Your task to perform on an android device: Clear the shopping cart on target.com. Search for "razer blade" on target.com, select the first entry, add it to the cart, then select checkout. Image 0: 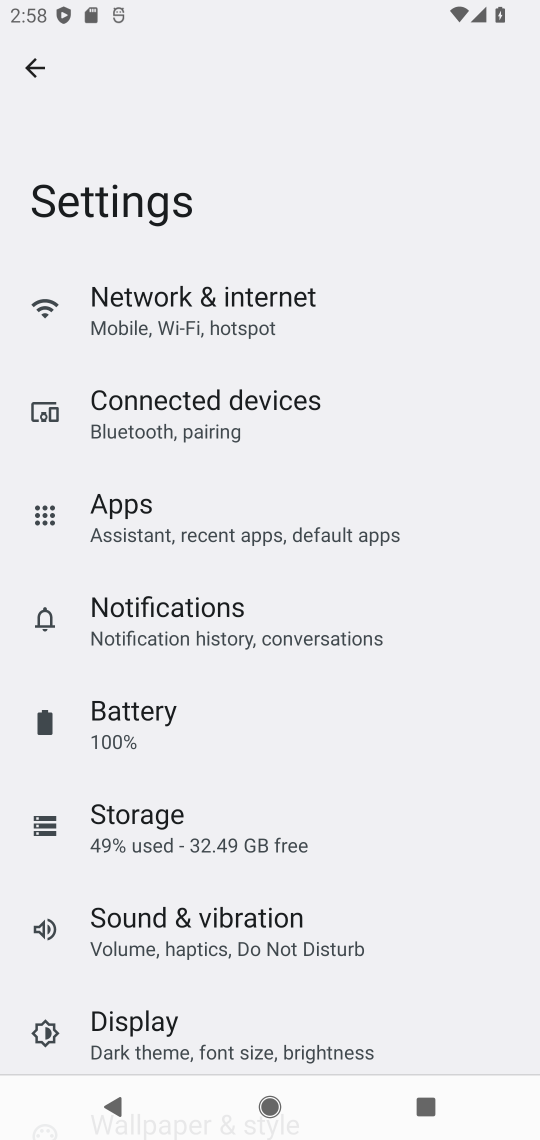
Step 0: press home button
Your task to perform on an android device: Clear the shopping cart on target.com. Search for "razer blade" on target.com, select the first entry, add it to the cart, then select checkout. Image 1: 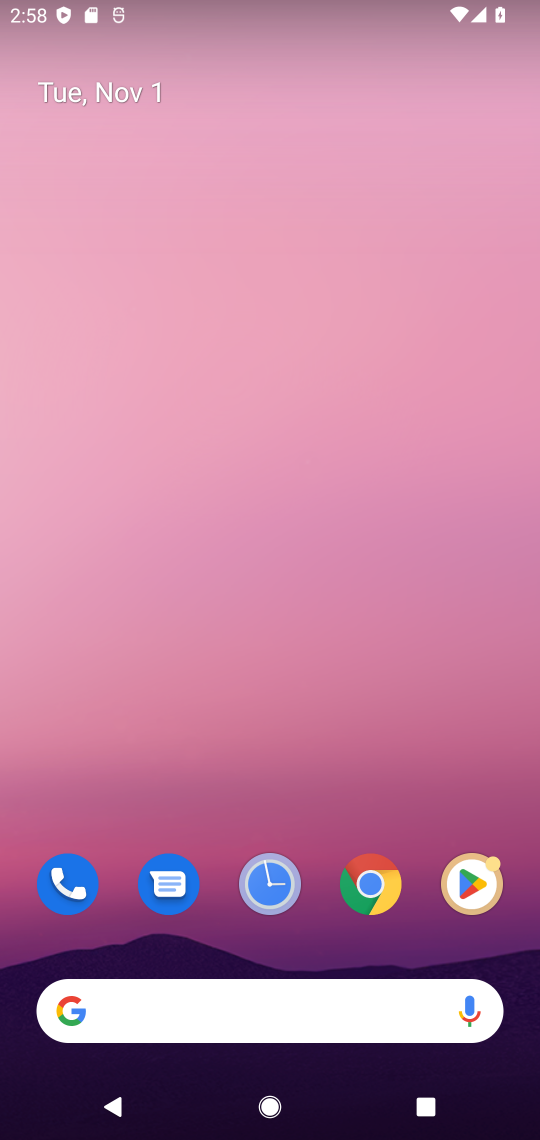
Step 1: click (376, 868)
Your task to perform on an android device: Clear the shopping cart on target.com. Search for "razer blade" on target.com, select the first entry, add it to the cart, then select checkout. Image 2: 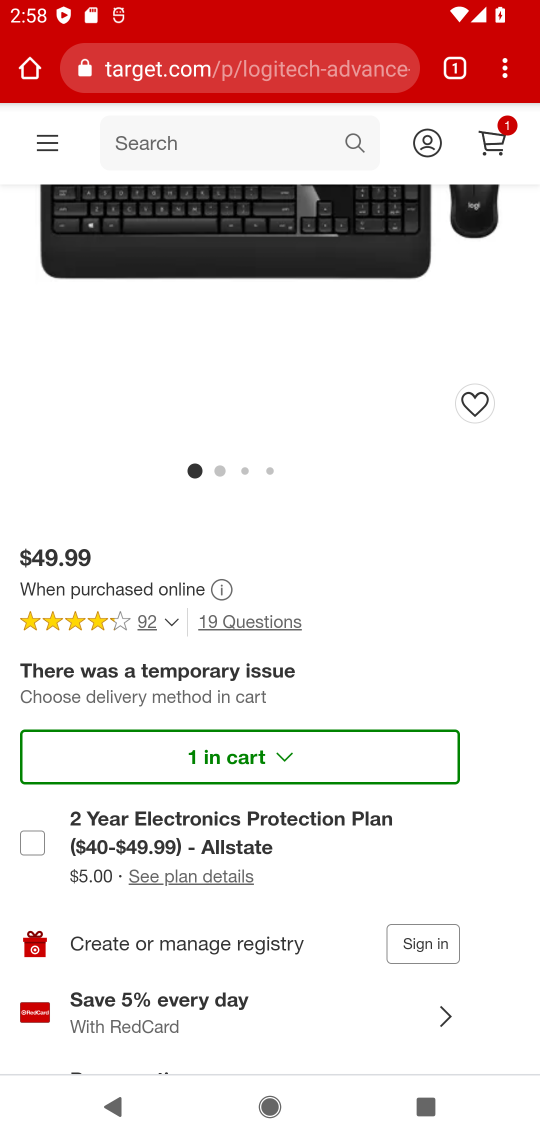
Step 2: click (500, 145)
Your task to perform on an android device: Clear the shopping cart on target.com. Search for "razer blade" on target.com, select the first entry, add it to the cart, then select checkout. Image 3: 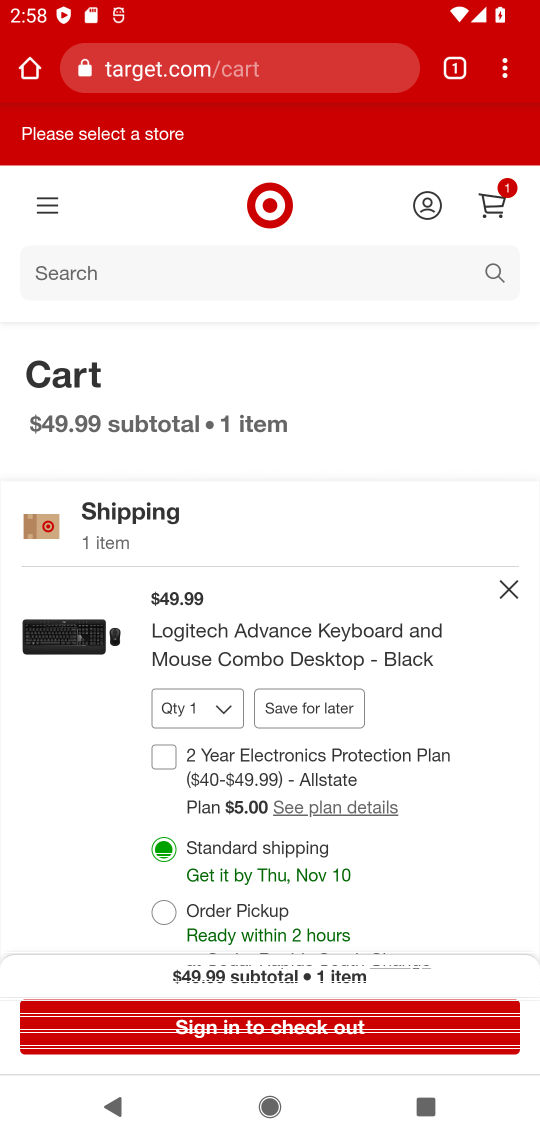
Step 3: click (503, 586)
Your task to perform on an android device: Clear the shopping cart on target.com. Search for "razer blade" on target.com, select the first entry, add it to the cart, then select checkout. Image 4: 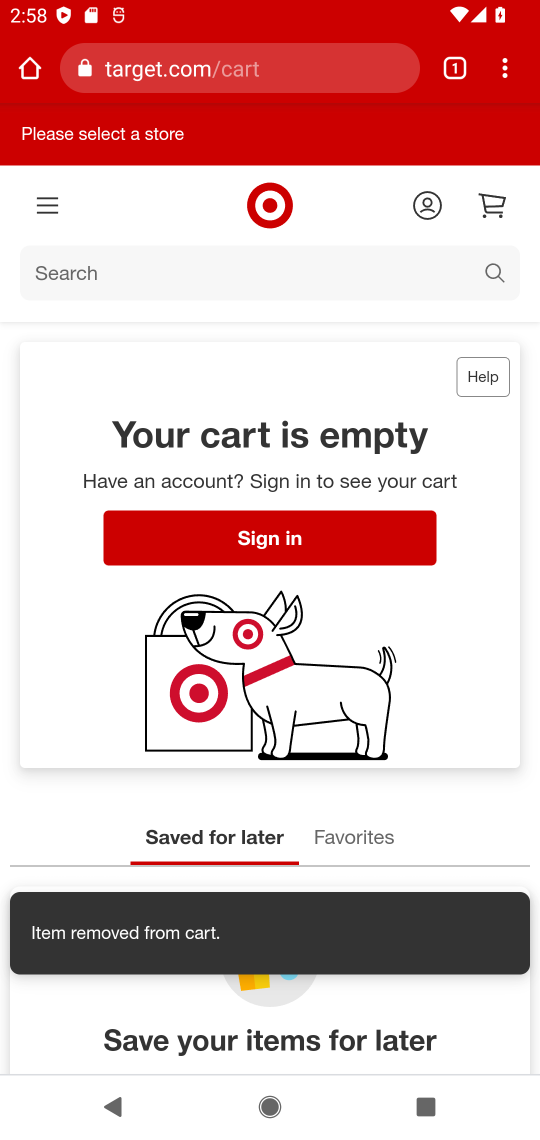
Step 4: click (490, 268)
Your task to perform on an android device: Clear the shopping cart on target.com. Search for "razer blade" on target.com, select the first entry, add it to the cart, then select checkout. Image 5: 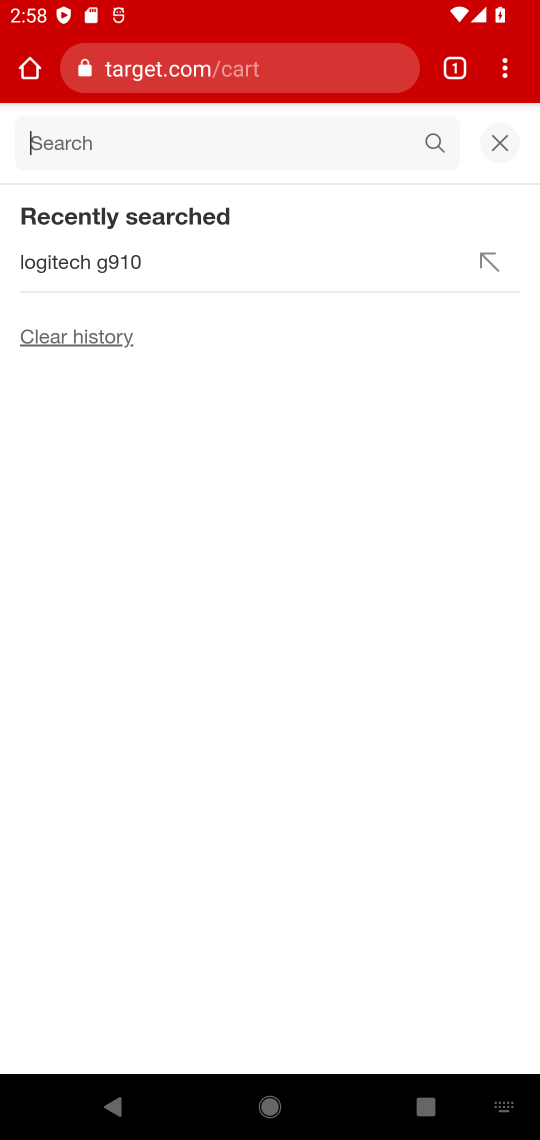
Step 5: type "razer blade"
Your task to perform on an android device: Clear the shopping cart on target.com. Search for "razer blade" on target.com, select the first entry, add it to the cart, then select checkout. Image 6: 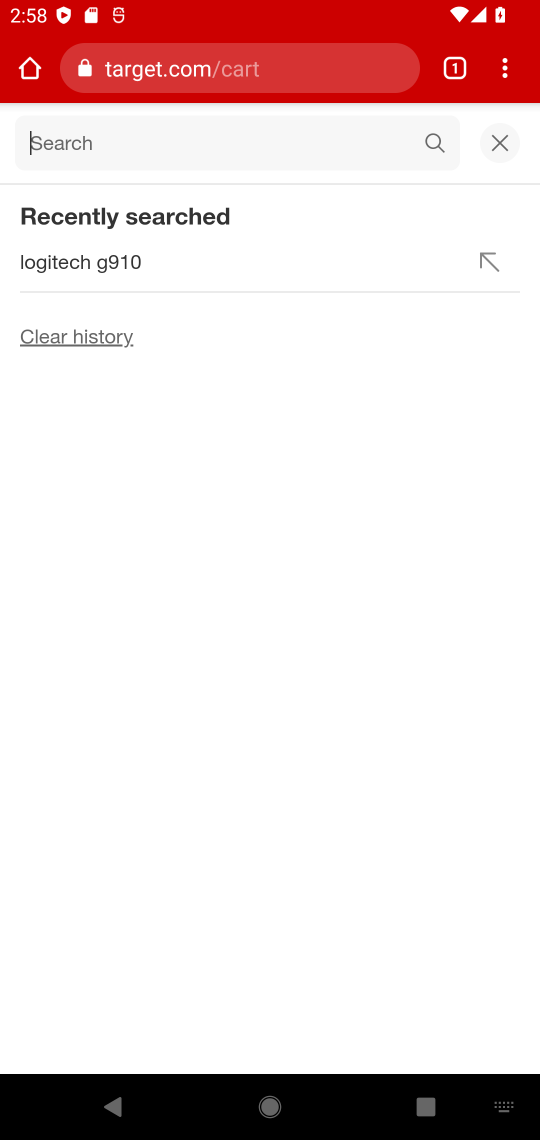
Step 6: press enter
Your task to perform on an android device: Clear the shopping cart on target.com. Search for "razer blade" on target.com, select the first entry, add it to the cart, then select checkout. Image 7: 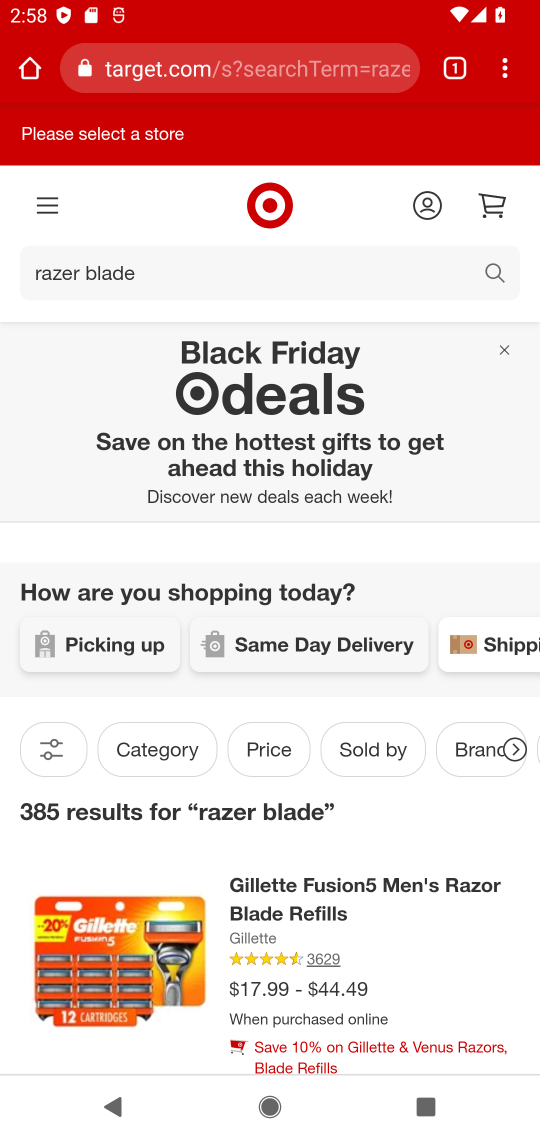
Step 7: click (169, 936)
Your task to perform on an android device: Clear the shopping cart on target.com. Search for "razer blade" on target.com, select the first entry, add it to the cart, then select checkout. Image 8: 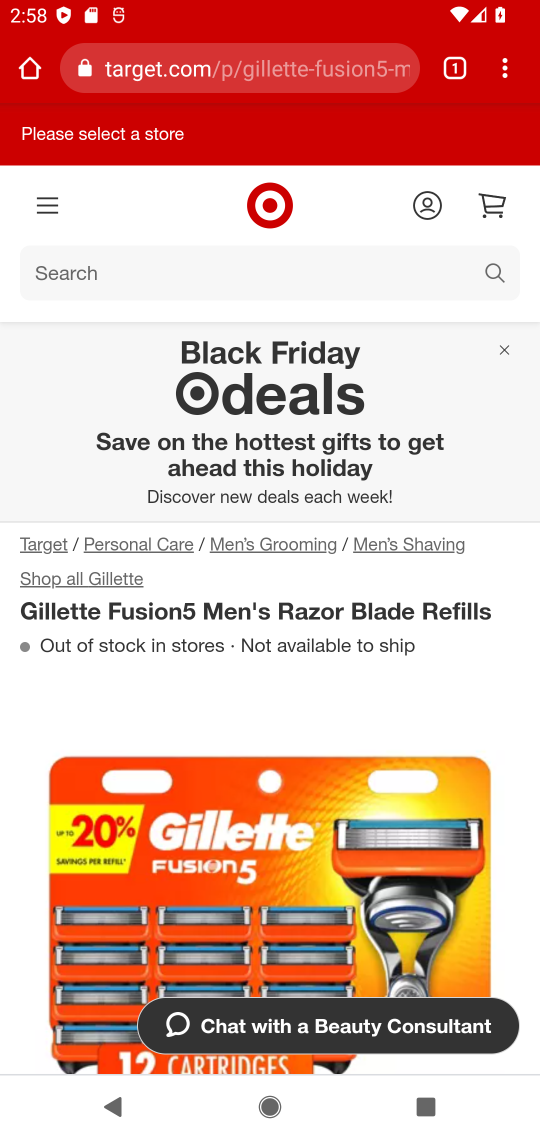
Step 8: drag from (432, 870) to (534, 367)
Your task to perform on an android device: Clear the shopping cart on target.com. Search for "razer blade" on target.com, select the first entry, add it to the cart, then select checkout. Image 9: 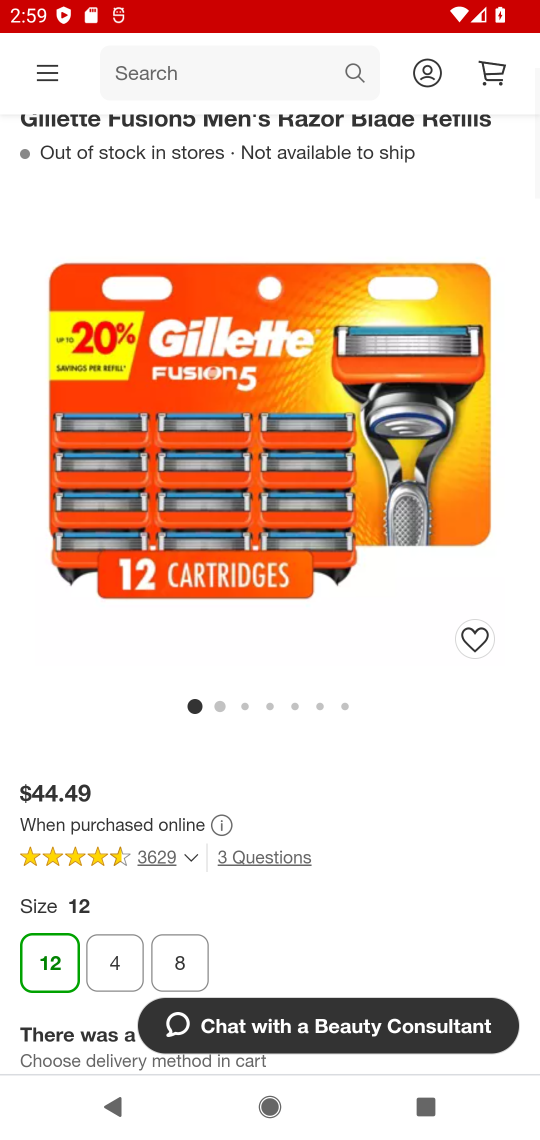
Step 9: drag from (356, 809) to (439, 373)
Your task to perform on an android device: Clear the shopping cart on target.com. Search for "razer blade" on target.com, select the first entry, add it to the cart, then select checkout. Image 10: 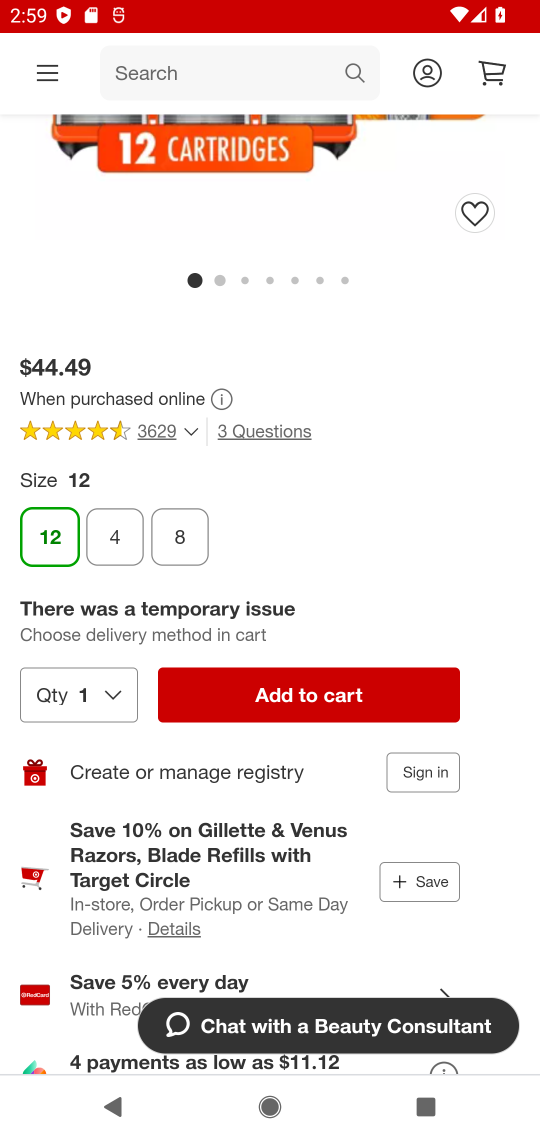
Step 10: click (387, 699)
Your task to perform on an android device: Clear the shopping cart on target.com. Search for "razer blade" on target.com, select the first entry, add it to the cart, then select checkout. Image 11: 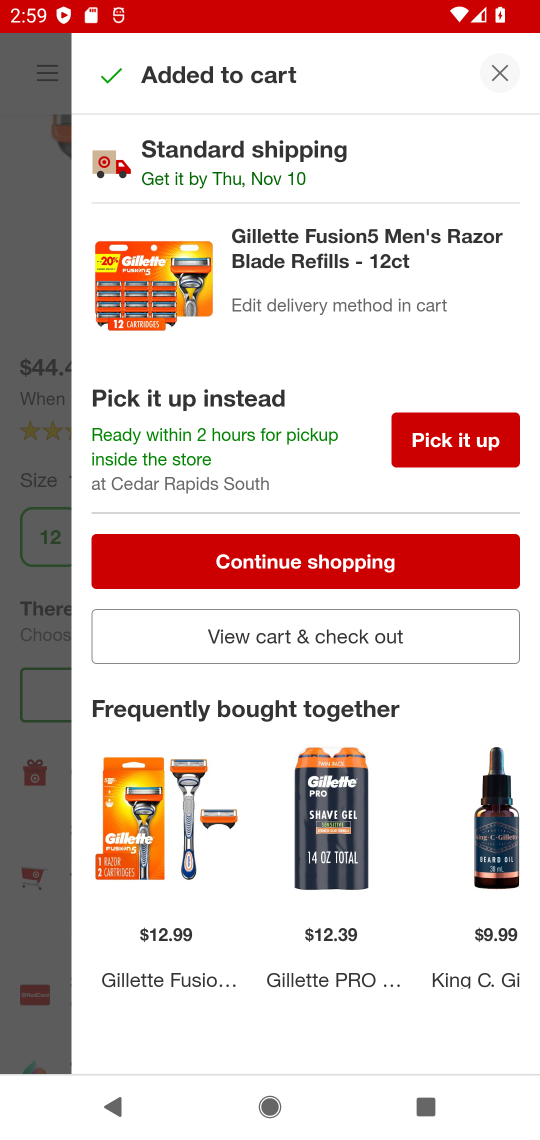
Step 11: click (499, 70)
Your task to perform on an android device: Clear the shopping cart on target.com. Search for "razer blade" on target.com, select the first entry, add it to the cart, then select checkout. Image 12: 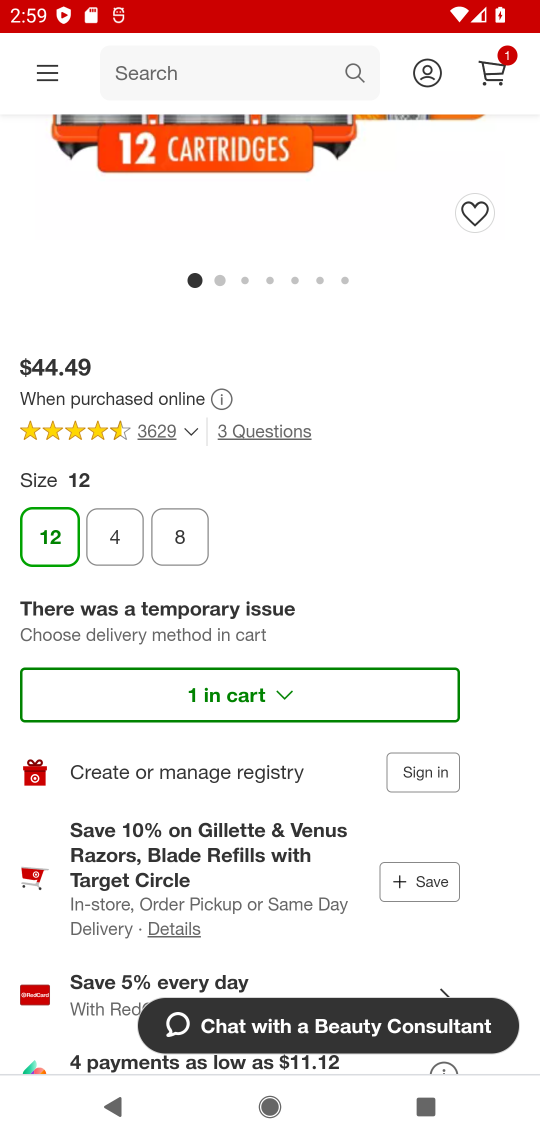
Step 12: click (496, 59)
Your task to perform on an android device: Clear the shopping cart on target.com. Search for "razer blade" on target.com, select the first entry, add it to the cart, then select checkout. Image 13: 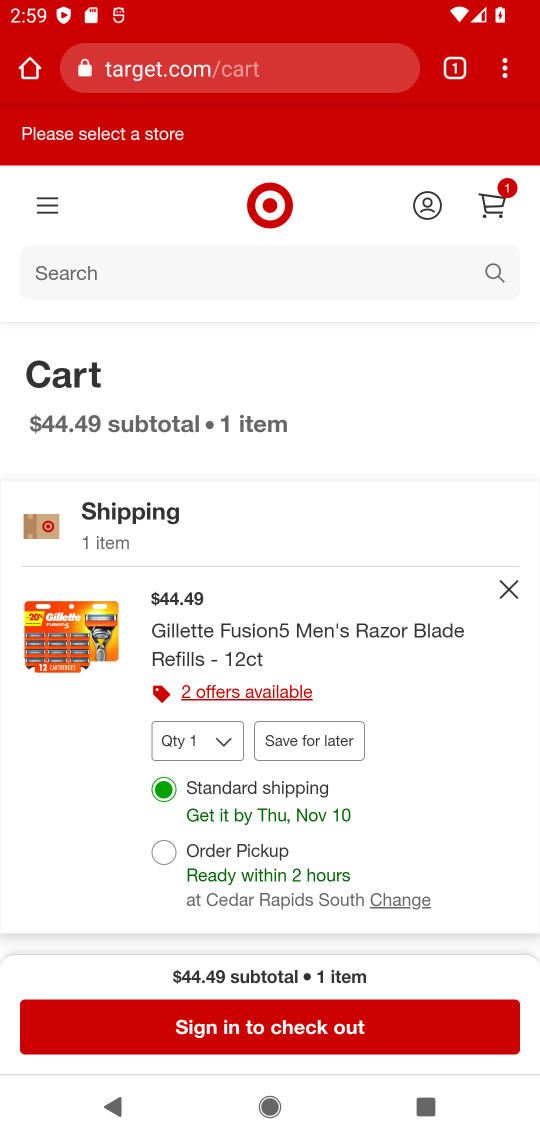
Step 13: click (329, 1026)
Your task to perform on an android device: Clear the shopping cart on target.com. Search for "razer blade" on target.com, select the first entry, add it to the cart, then select checkout. Image 14: 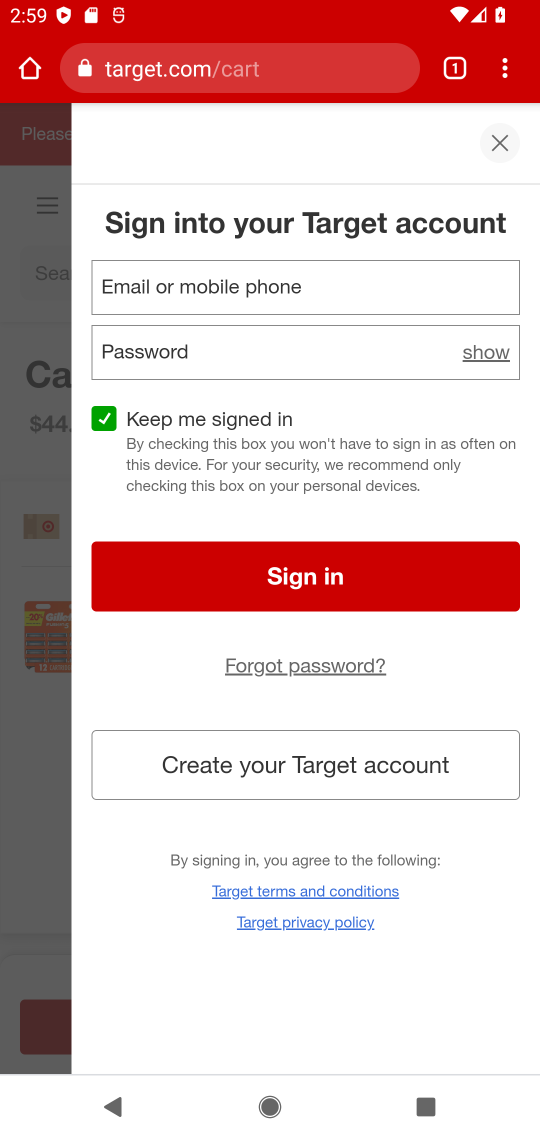
Step 14: task complete